Your task to perform on an android device: Search for razer blackwidow on amazon.com, select the first entry, and add it to the cart. Image 0: 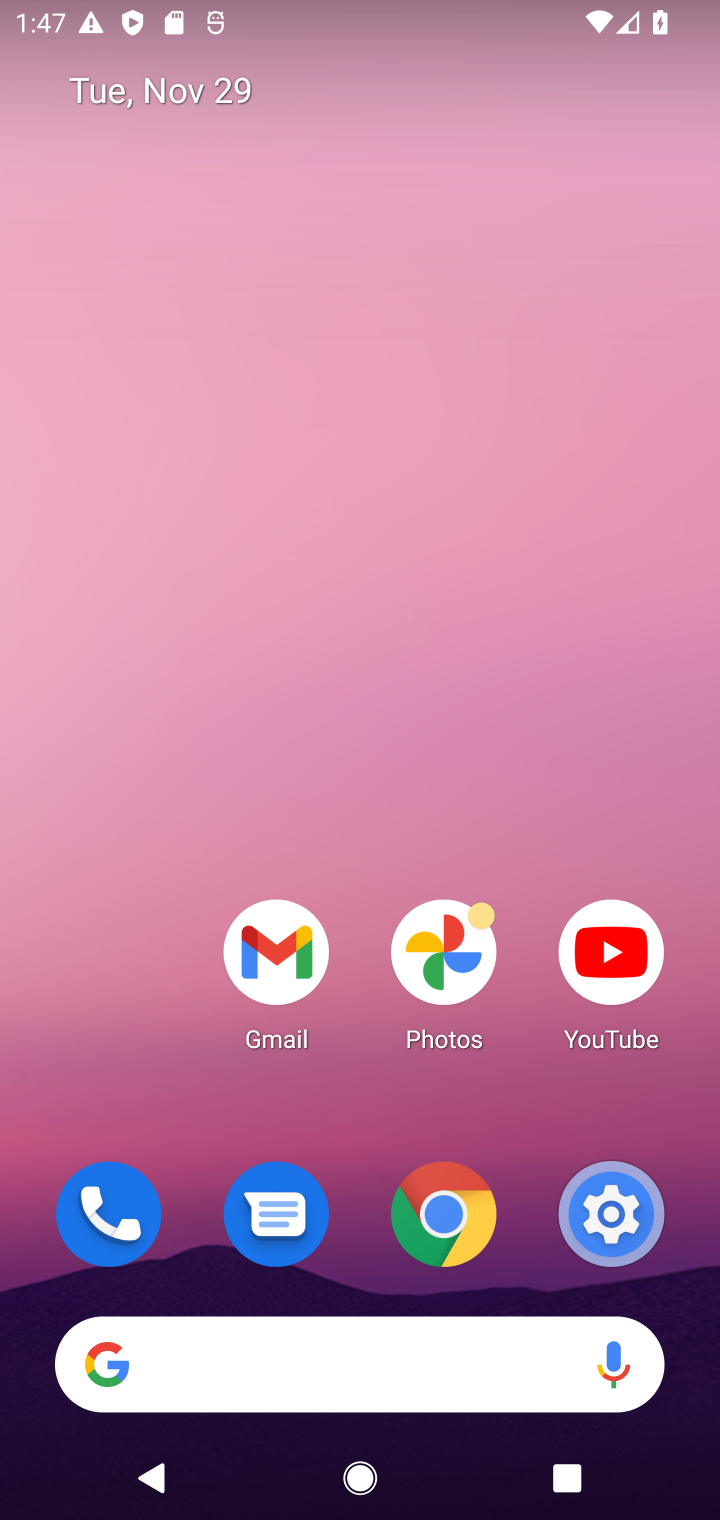
Step 0: click (339, 1370)
Your task to perform on an android device: Search for razer blackwidow on amazon.com, select the first entry, and add it to the cart. Image 1: 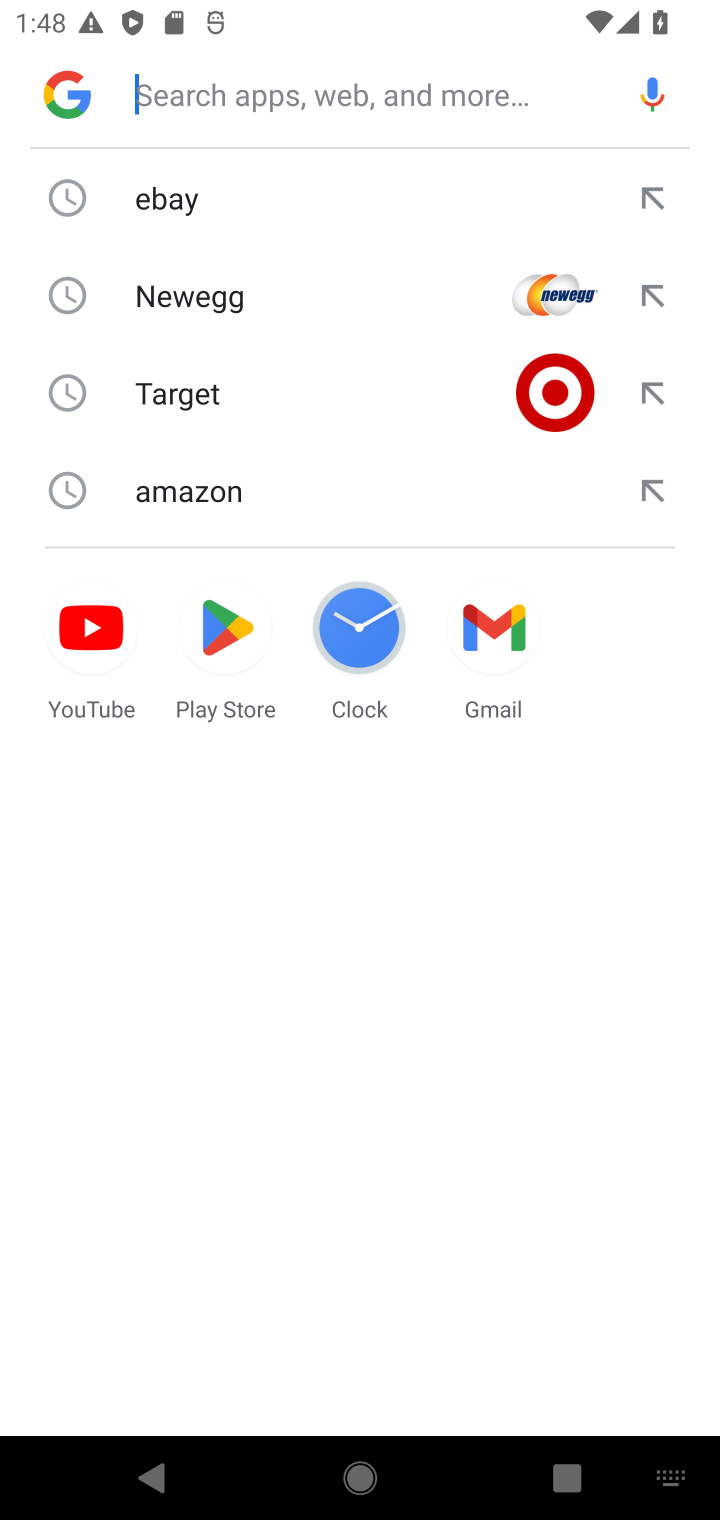
Step 1: click (224, 490)
Your task to perform on an android device: Search for razer blackwidow on amazon.com, select the first entry, and add it to the cart. Image 2: 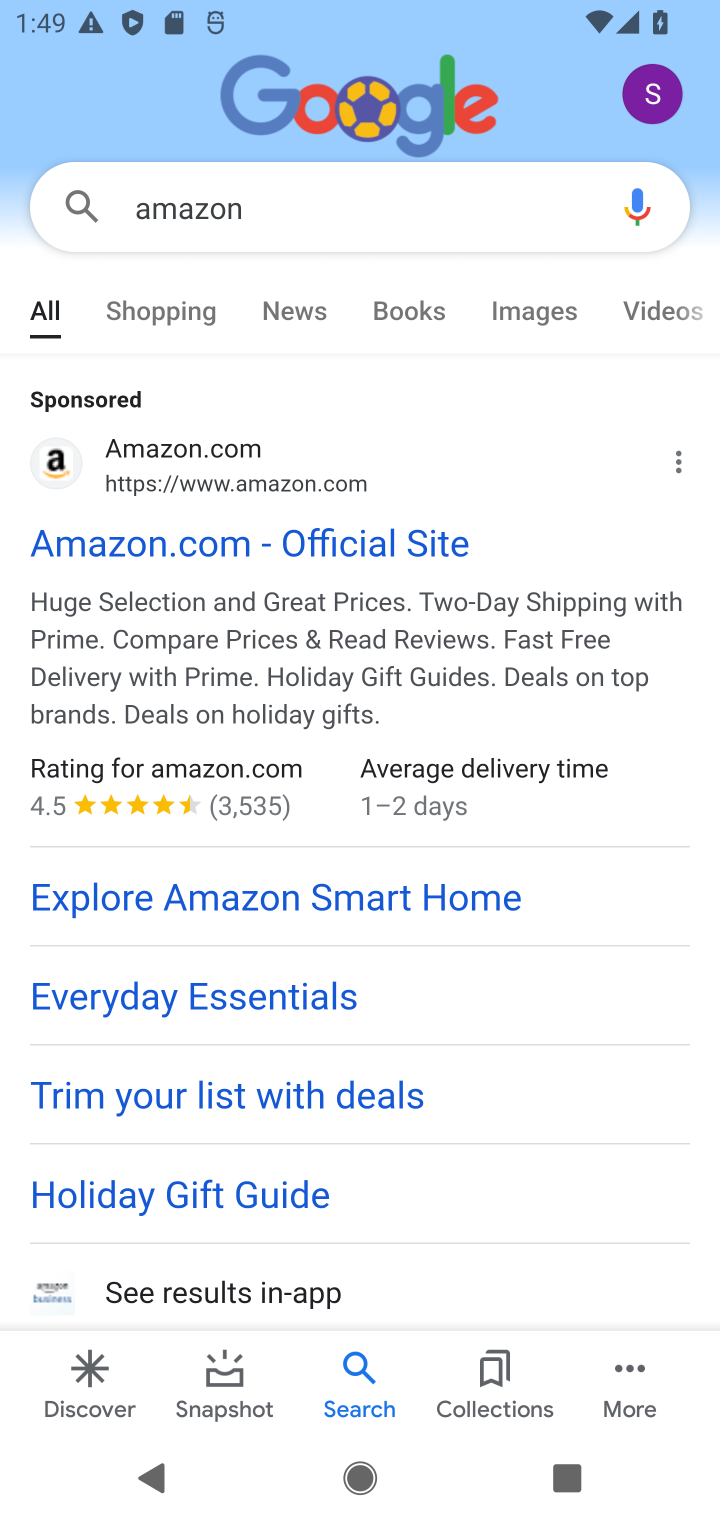
Step 2: click (165, 571)
Your task to perform on an android device: Search for razer blackwidow on amazon.com, select the first entry, and add it to the cart. Image 3: 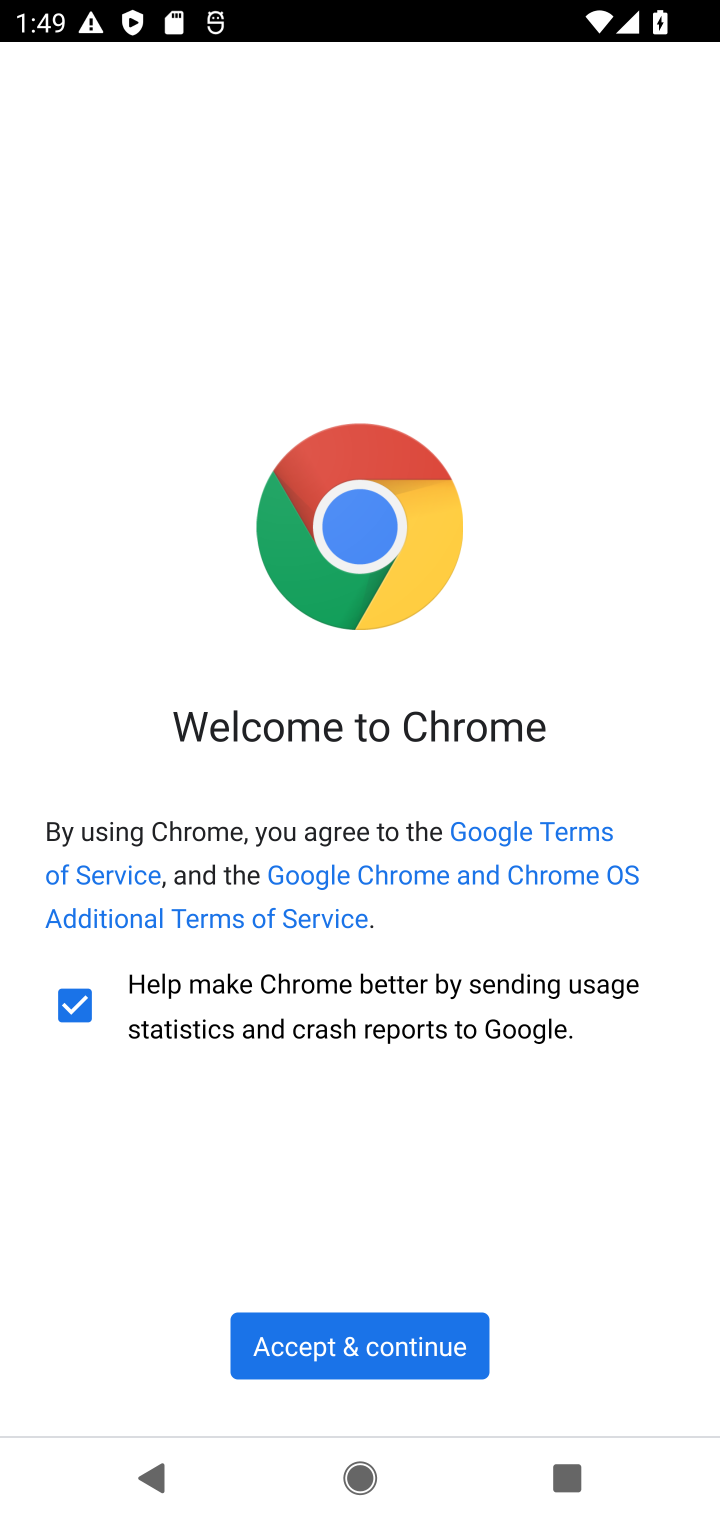
Step 3: click (341, 1327)
Your task to perform on an android device: Search for razer blackwidow on amazon.com, select the first entry, and add it to the cart. Image 4: 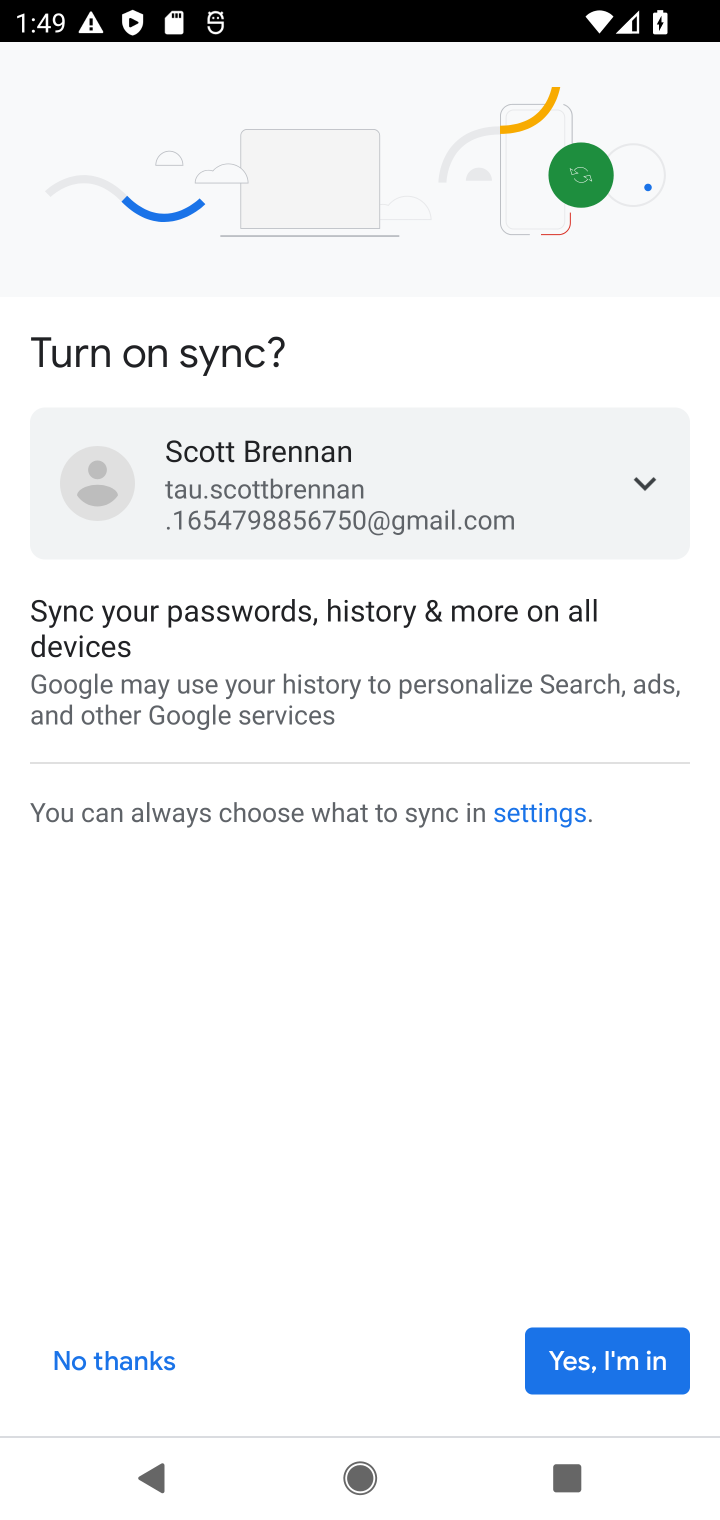
Step 4: click (641, 1338)
Your task to perform on an android device: Search for razer blackwidow on amazon.com, select the first entry, and add it to the cart. Image 5: 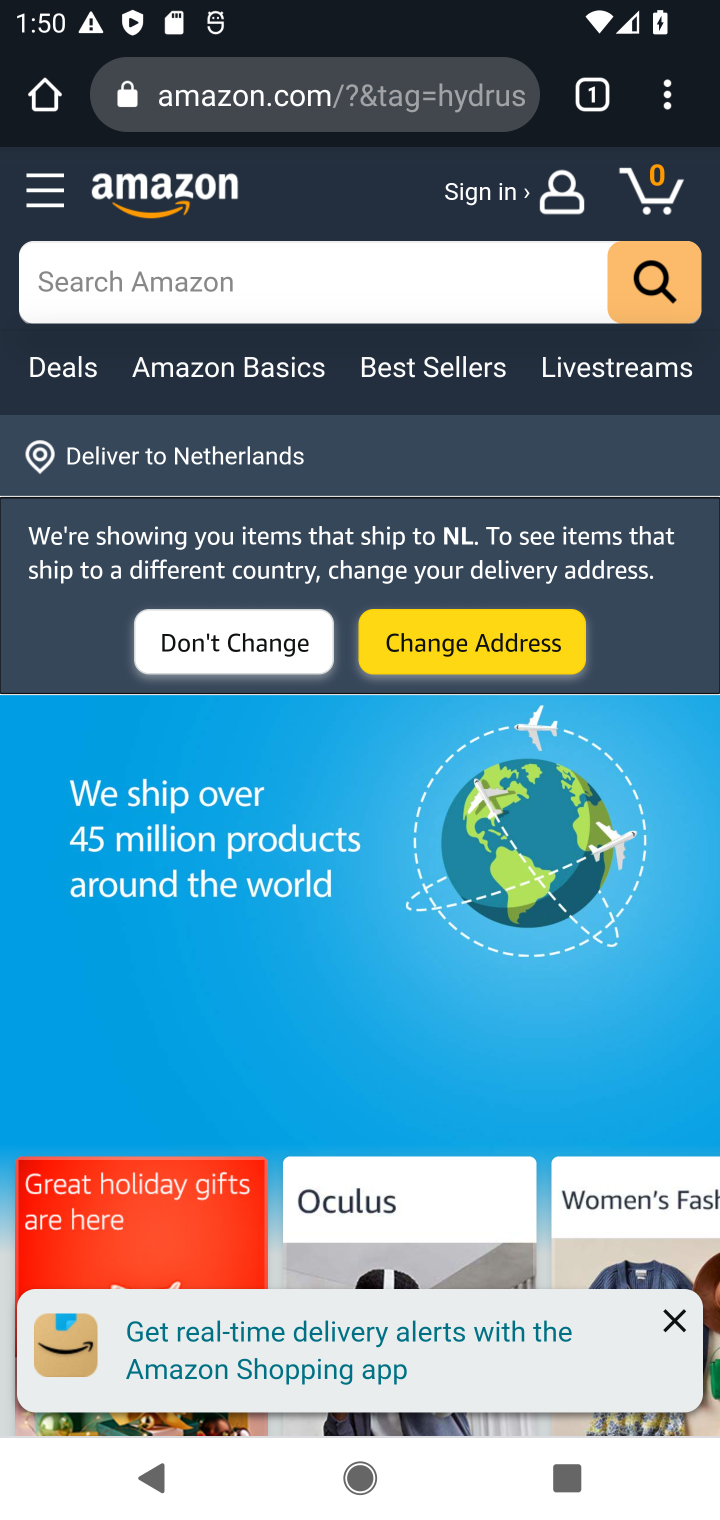
Step 5: click (163, 302)
Your task to perform on an android device: Search for razer blackwidow on amazon.com, select the first entry, and add it to the cart. Image 6: 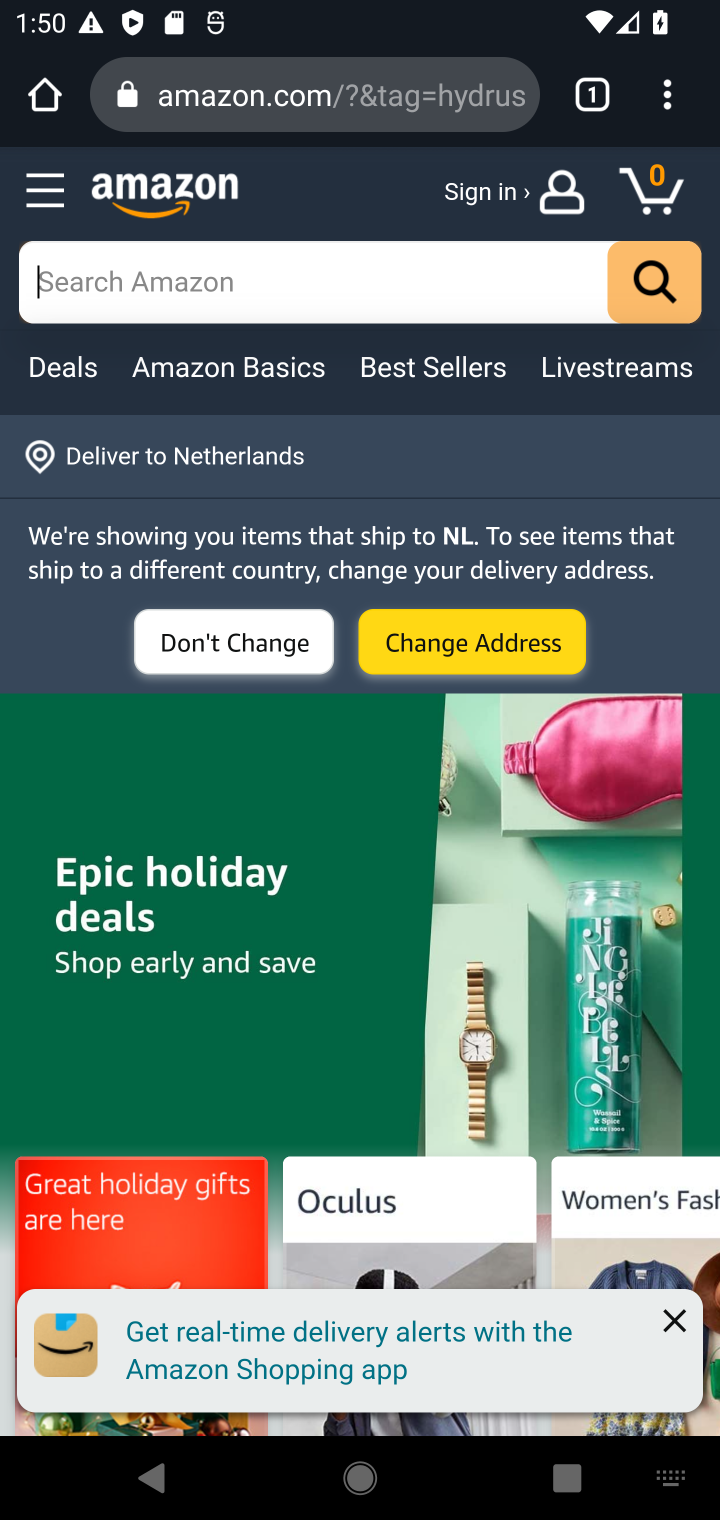
Step 6: type "razer black "
Your task to perform on an android device: Search for razer blackwidow on amazon.com, select the first entry, and add it to the cart. Image 7: 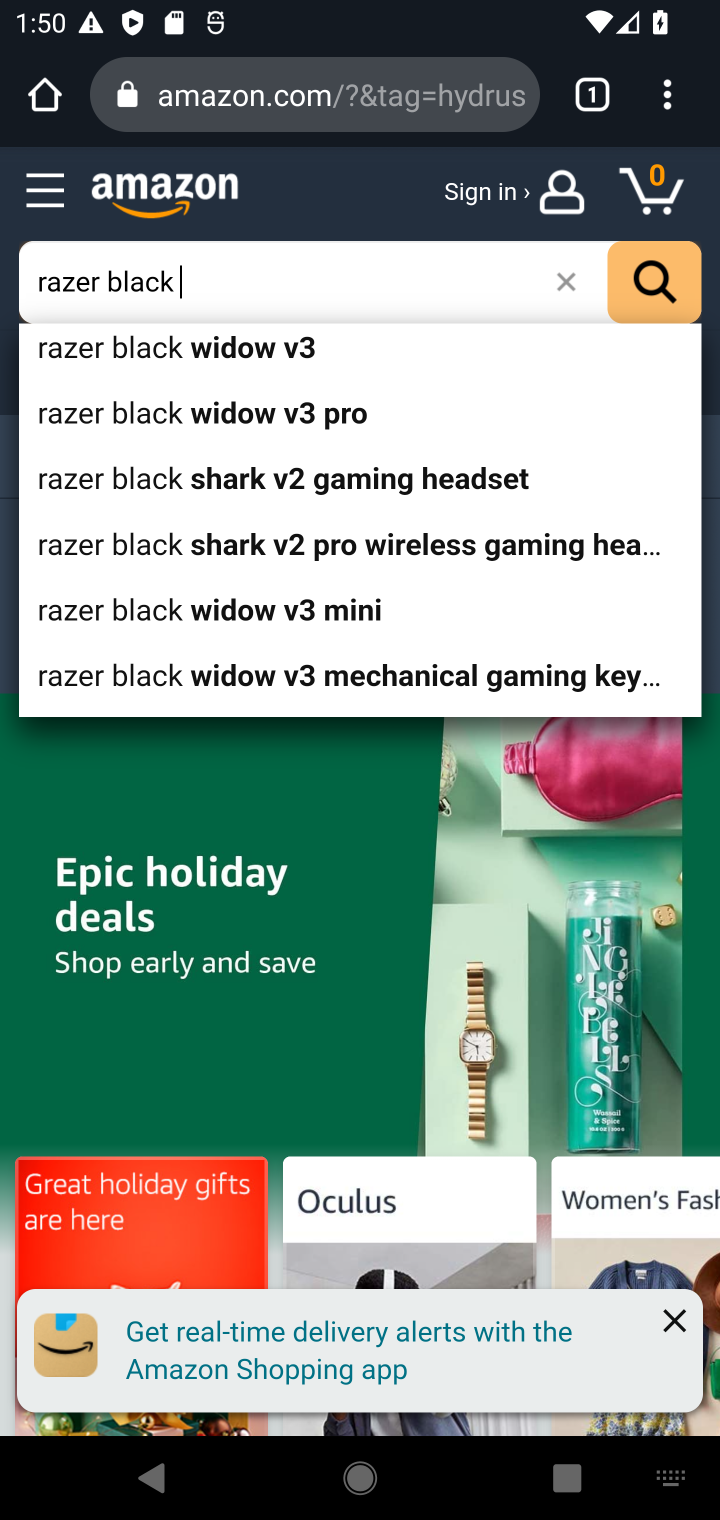
Step 7: click (629, 294)
Your task to perform on an android device: Search for razer blackwidow on amazon.com, select the first entry, and add it to the cart. Image 8: 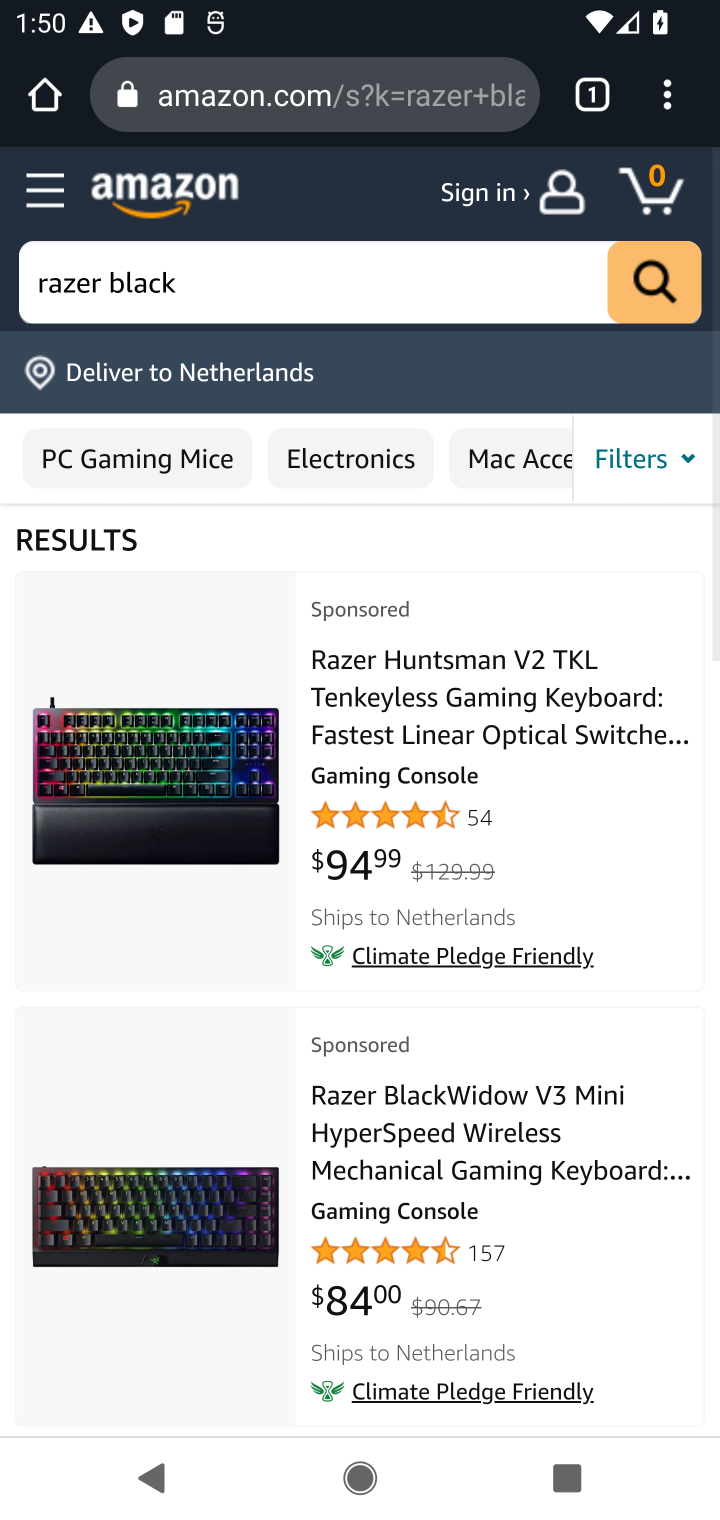
Step 8: task complete